Your task to perform on an android device: Do I have any events tomorrow? Image 0: 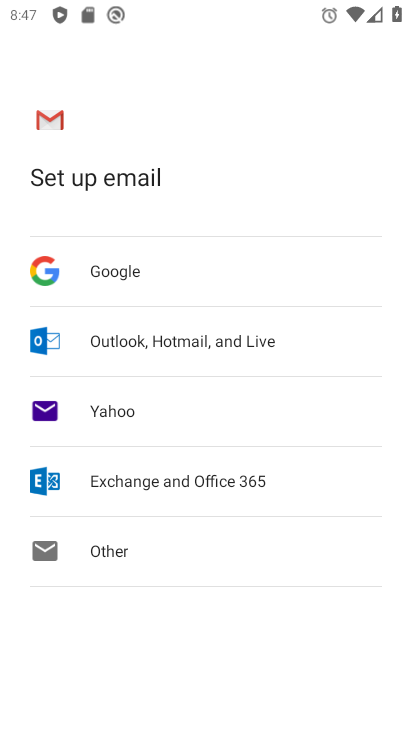
Step 0: press home button
Your task to perform on an android device: Do I have any events tomorrow? Image 1: 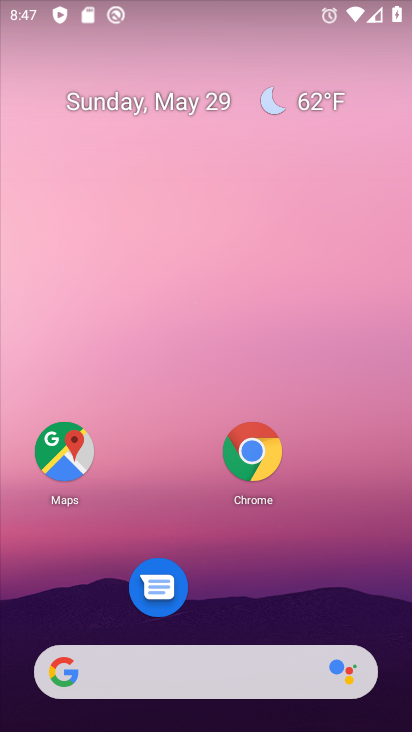
Step 1: click (151, 98)
Your task to perform on an android device: Do I have any events tomorrow? Image 2: 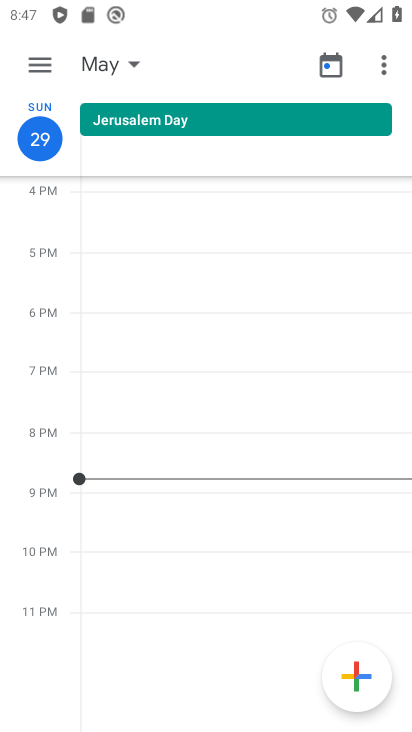
Step 2: click (122, 63)
Your task to perform on an android device: Do I have any events tomorrow? Image 3: 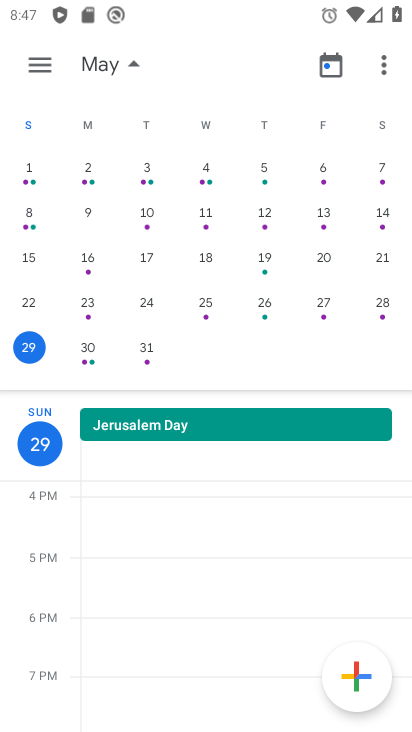
Step 3: click (81, 348)
Your task to perform on an android device: Do I have any events tomorrow? Image 4: 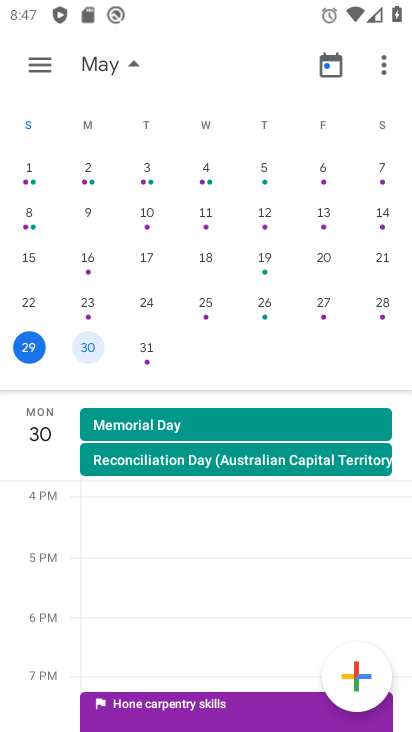
Step 4: task complete